Your task to perform on an android device: Search for the best selling books Image 0: 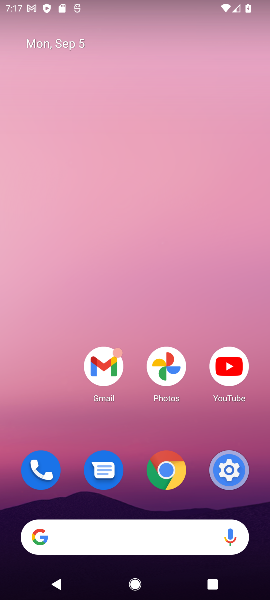
Step 0: drag from (51, 68) to (9, 436)
Your task to perform on an android device: Search for the best selling books Image 1: 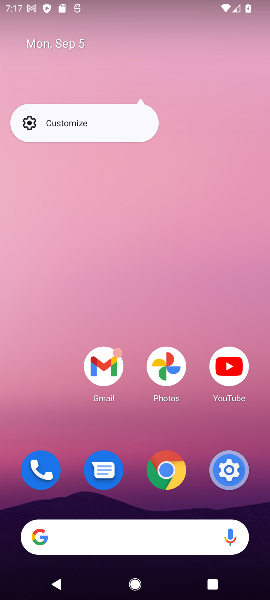
Step 1: drag from (135, 504) to (91, 55)
Your task to perform on an android device: Search for the best selling books Image 2: 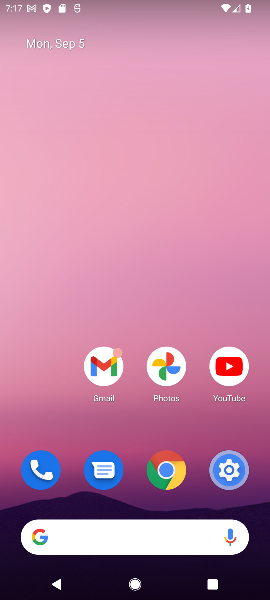
Step 2: drag from (133, 521) to (89, 41)
Your task to perform on an android device: Search for the best selling books Image 3: 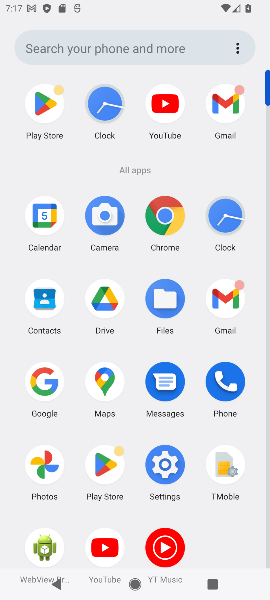
Step 3: click (162, 239)
Your task to perform on an android device: Search for the best selling books Image 4: 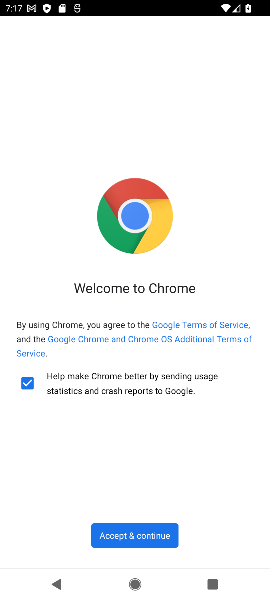
Step 4: click (149, 539)
Your task to perform on an android device: Search for the best selling books Image 5: 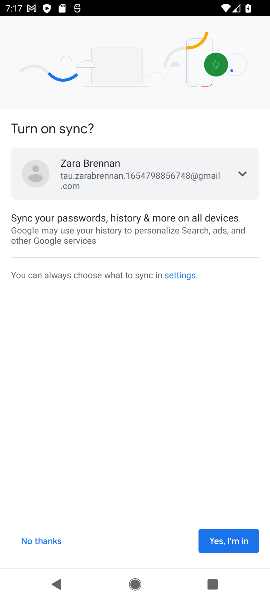
Step 5: click (226, 538)
Your task to perform on an android device: Search for the best selling books Image 6: 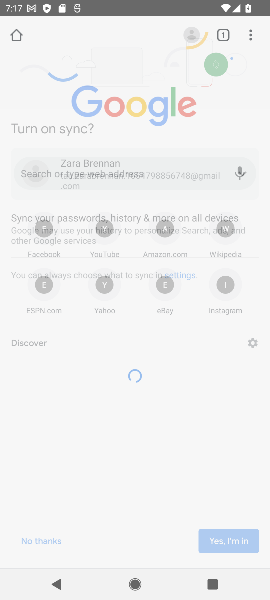
Step 6: click (229, 536)
Your task to perform on an android device: Search for the best selling books Image 7: 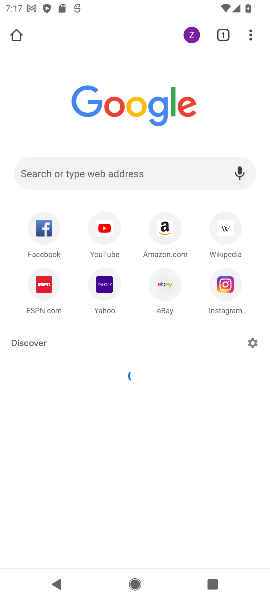
Step 7: click (64, 171)
Your task to perform on an android device: Search for the best selling books Image 8: 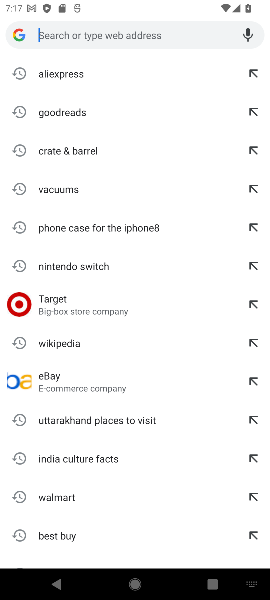
Step 8: type "the best selling books"
Your task to perform on an android device: Search for the best selling books Image 9: 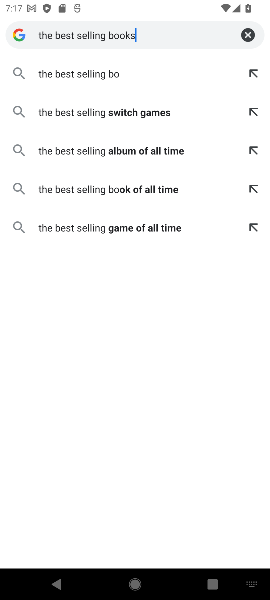
Step 9: type ""
Your task to perform on an android device: Search for the best selling books Image 10: 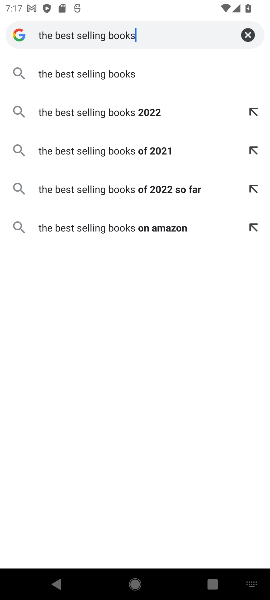
Step 10: click (104, 73)
Your task to perform on an android device: Search for the best selling books Image 11: 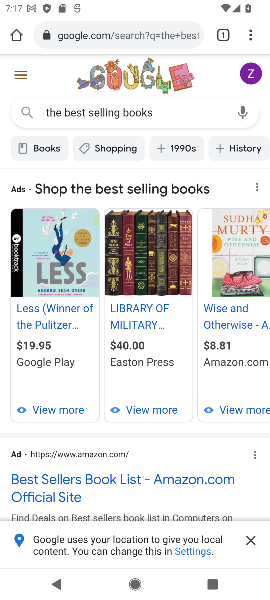
Step 11: click (248, 544)
Your task to perform on an android device: Search for the best selling books Image 12: 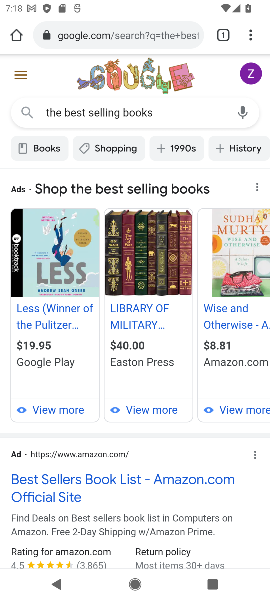
Step 12: click (79, 495)
Your task to perform on an android device: Search for the best selling books Image 13: 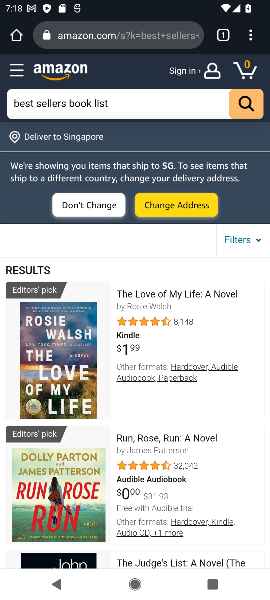
Step 13: task complete